Your task to perform on an android device: Open Amazon Image 0: 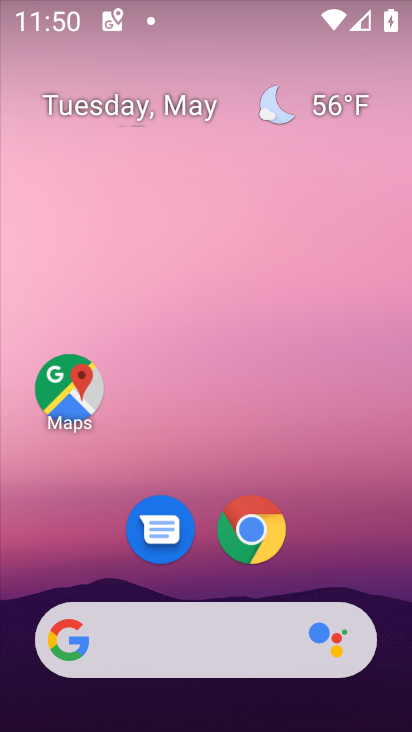
Step 0: click (265, 542)
Your task to perform on an android device: Open Amazon Image 1: 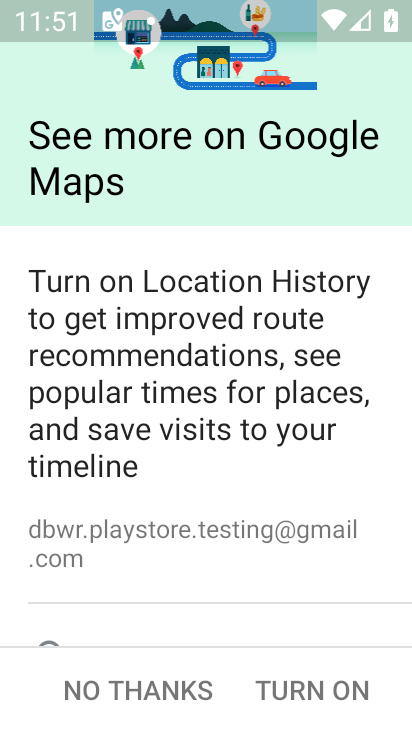
Step 1: click (333, 701)
Your task to perform on an android device: Open Amazon Image 2: 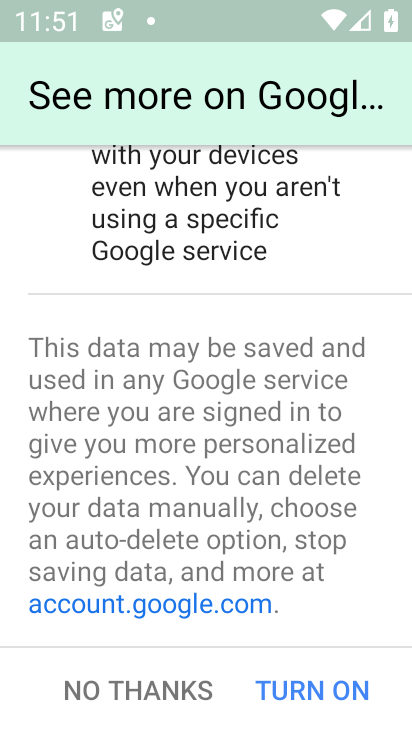
Step 2: click (333, 698)
Your task to perform on an android device: Open Amazon Image 3: 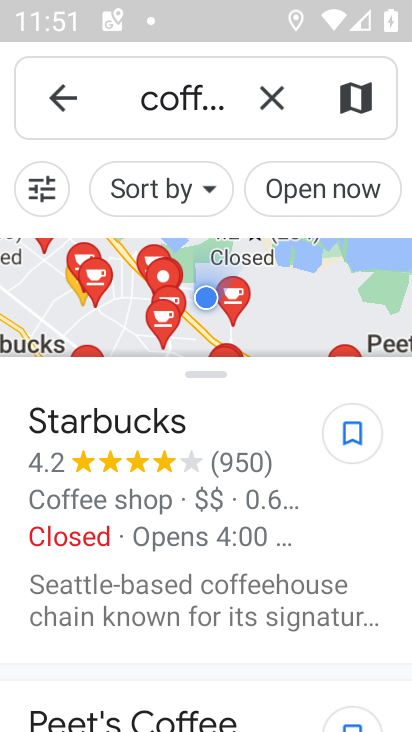
Step 3: click (270, 101)
Your task to perform on an android device: Open Amazon Image 4: 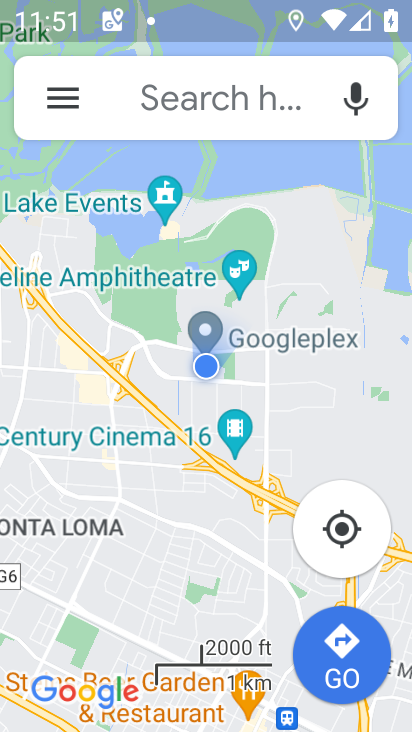
Step 4: press home button
Your task to perform on an android device: Open Amazon Image 5: 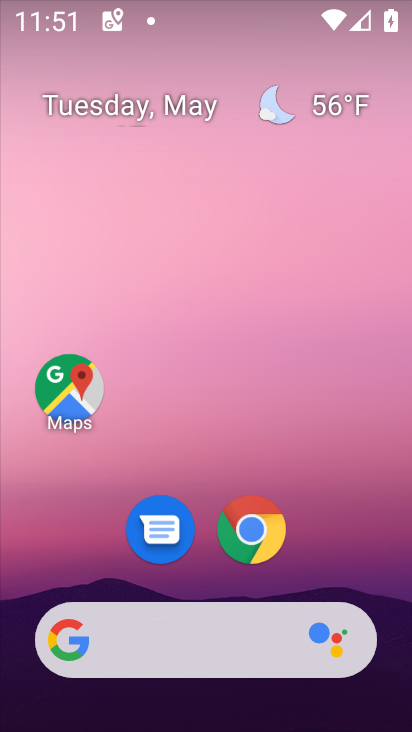
Step 5: click (256, 528)
Your task to perform on an android device: Open Amazon Image 6: 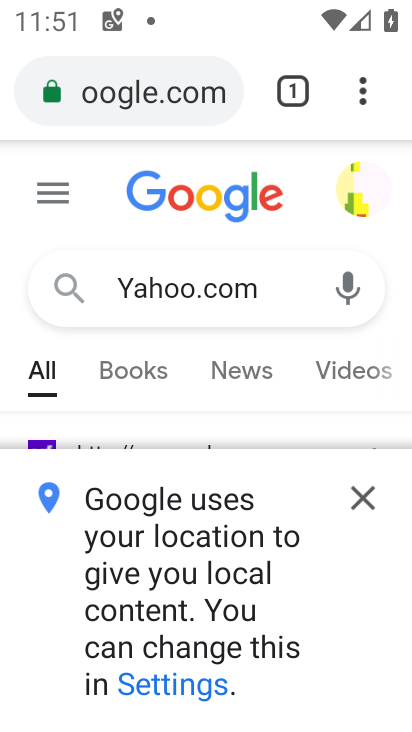
Step 6: type "Amazon"
Your task to perform on an android device: Open Amazon Image 7: 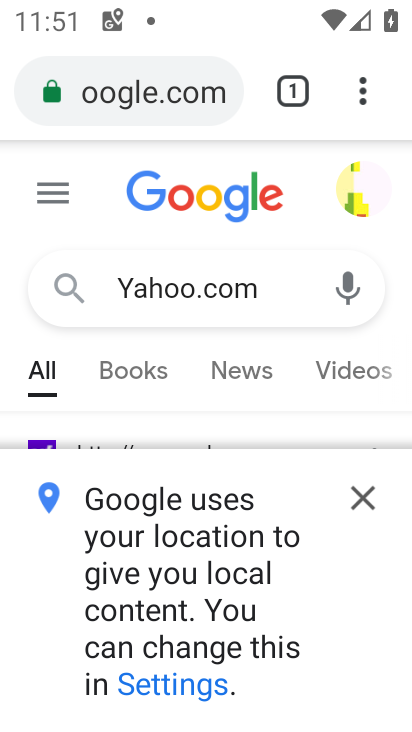
Step 7: click (223, 87)
Your task to perform on an android device: Open Amazon Image 8: 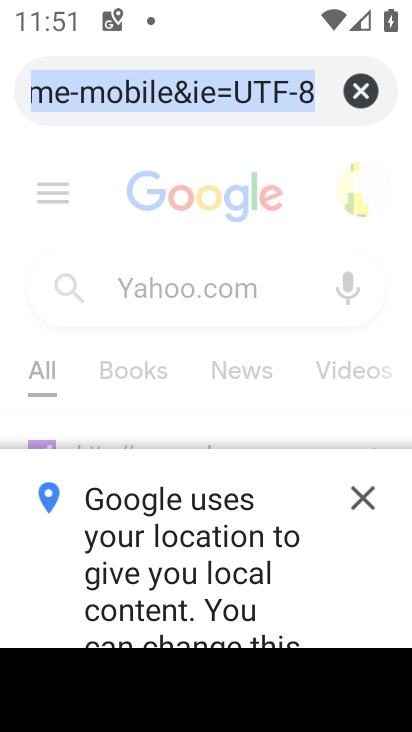
Step 8: click (355, 86)
Your task to perform on an android device: Open Amazon Image 9: 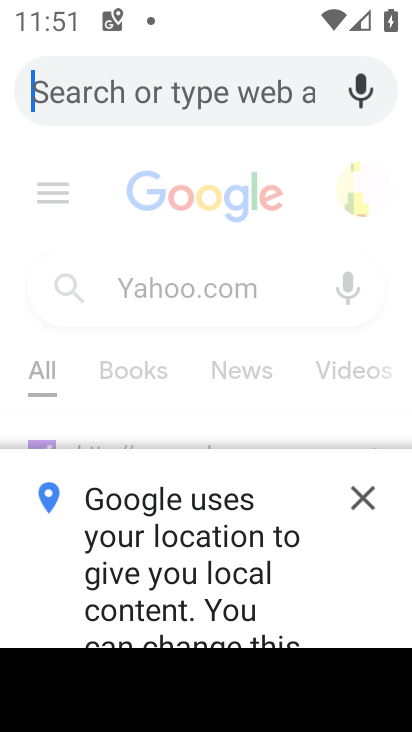
Step 9: type "Amazon"
Your task to perform on an android device: Open Amazon Image 10: 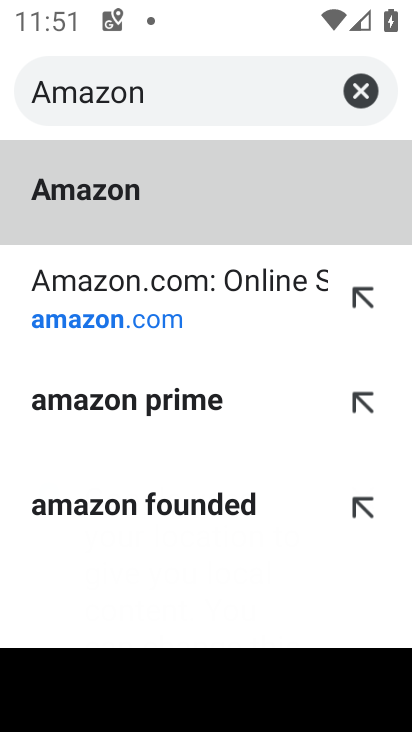
Step 10: click (61, 190)
Your task to perform on an android device: Open Amazon Image 11: 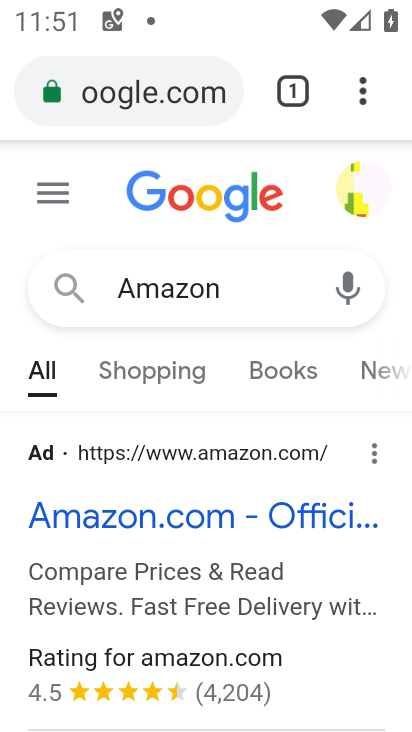
Step 11: task complete